Your task to perform on an android device: Go to network settings Image 0: 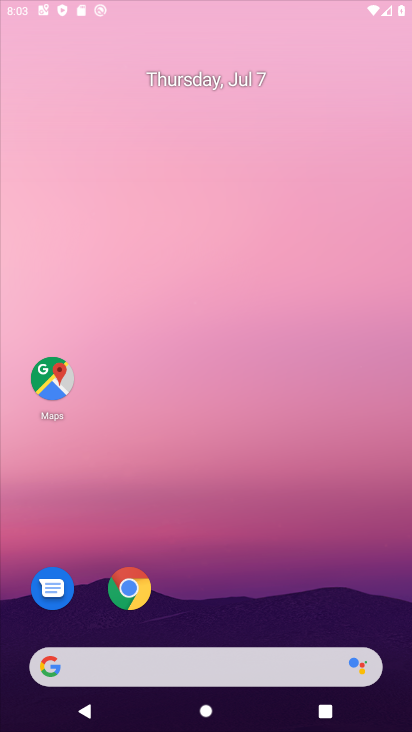
Step 0: drag from (187, 545) to (241, 185)
Your task to perform on an android device: Go to network settings Image 1: 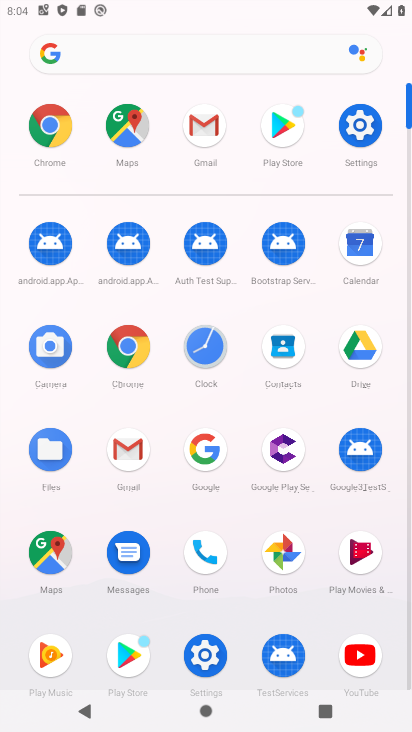
Step 1: click (354, 128)
Your task to perform on an android device: Go to network settings Image 2: 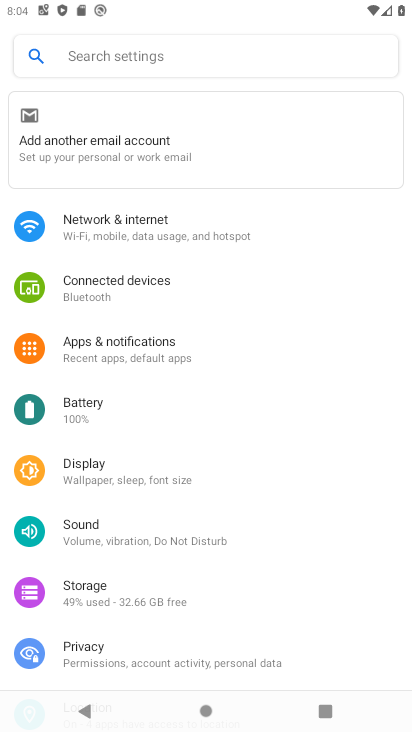
Step 2: drag from (233, 464) to (254, 212)
Your task to perform on an android device: Go to network settings Image 3: 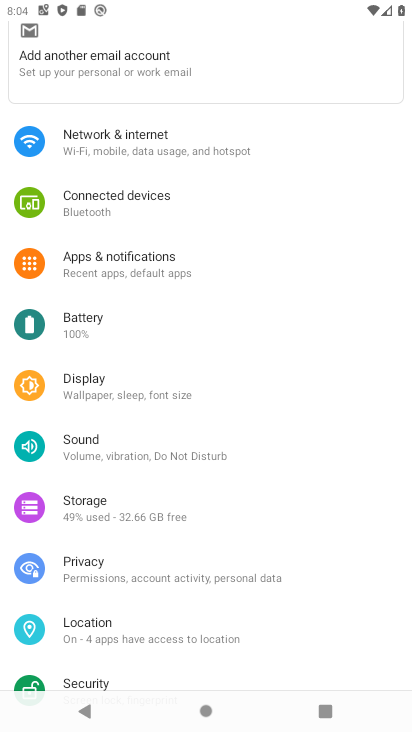
Step 3: drag from (214, 590) to (347, 43)
Your task to perform on an android device: Go to network settings Image 4: 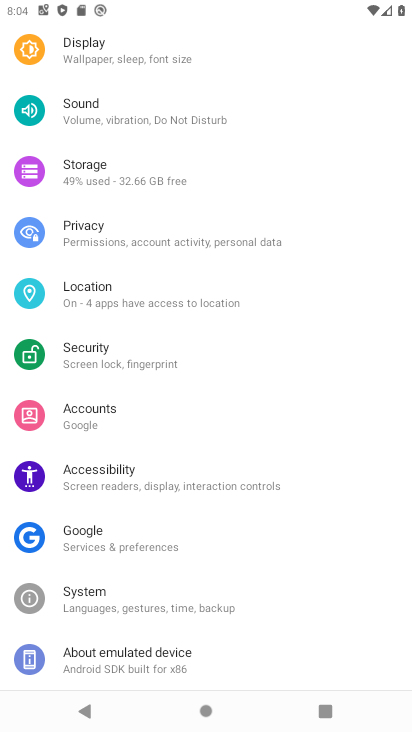
Step 4: drag from (210, 605) to (264, 232)
Your task to perform on an android device: Go to network settings Image 5: 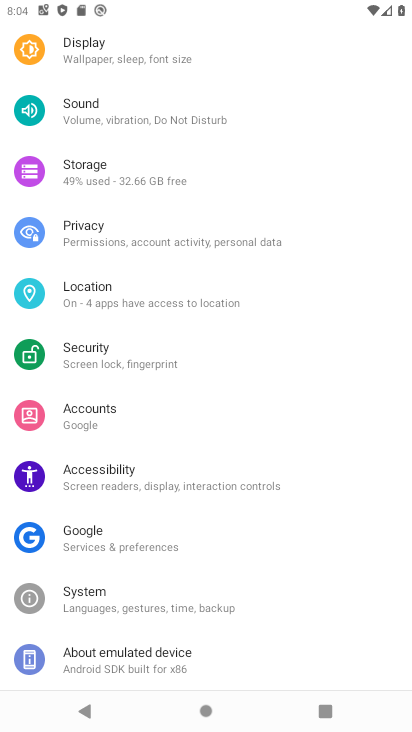
Step 5: drag from (194, 609) to (231, 308)
Your task to perform on an android device: Go to network settings Image 6: 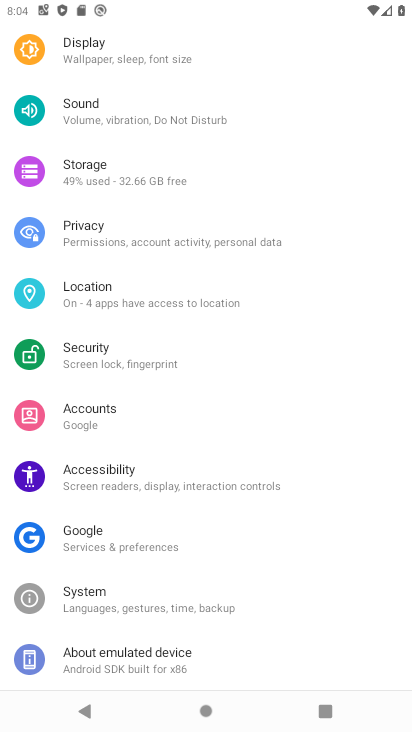
Step 6: drag from (219, 169) to (290, 708)
Your task to perform on an android device: Go to network settings Image 7: 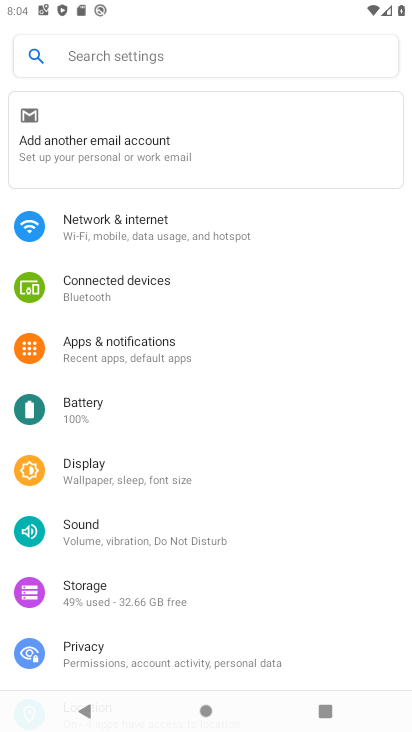
Step 7: click (178, 220)
Your task to perform on an android device: Go to network settings Image 8: 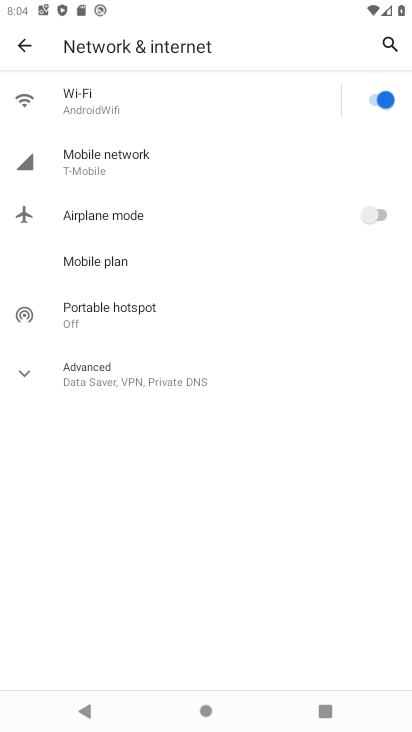
Step 8: click (195, 153)
Your task to perform on an android device: Go to network settings Image 9: 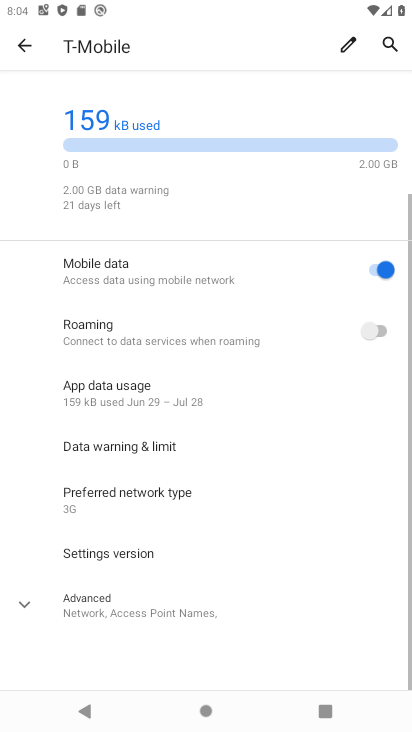
Step 9: task complete